Your task to perform on an android device: toggle airplane mode Image 0: 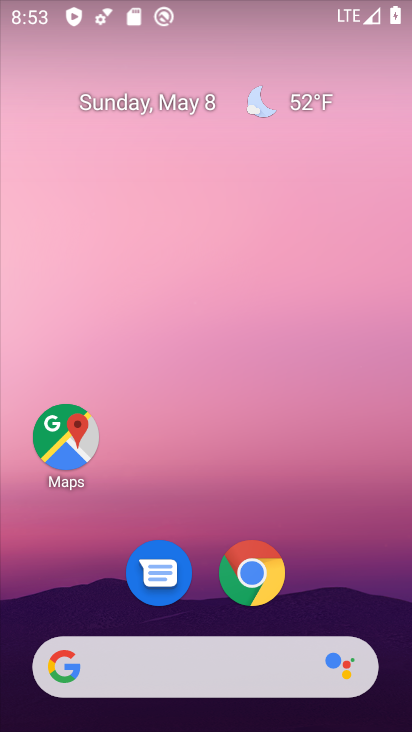
Step 0: drag from (207, 723) to (158, 214)
Your task to perform on an android device: toggle airplane mode Image 1: 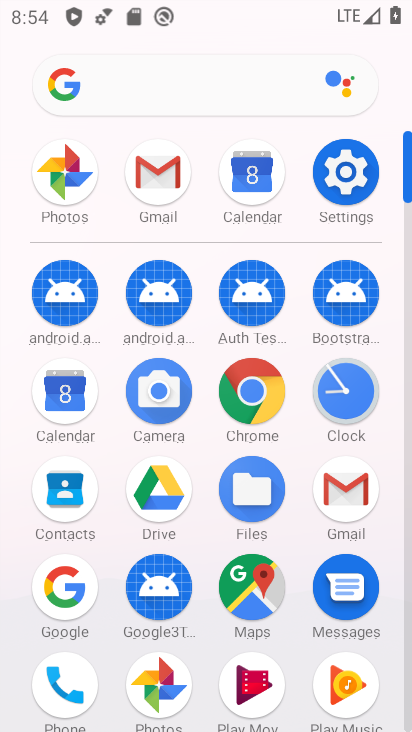
Step 1: click (344, 173)
Your task to perform on an android device: toggle airplane mode Image 2: 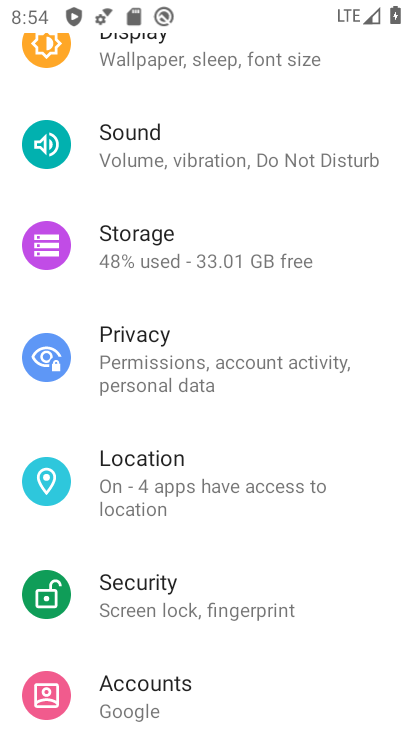
Step 2: drag from (240, 152) to (205, 654)
Your task to perform on an android device: toggle airplane mode Image 3: 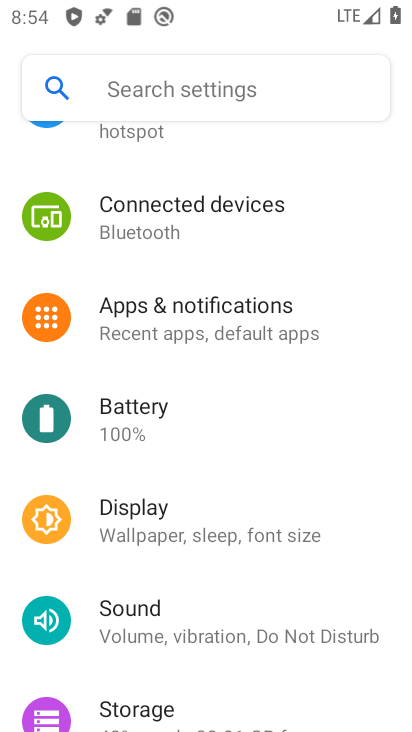
Step 3: drag from (208, 181) to (199, 588)
Your task to perform on an android device: toggle airplane mode Image 4: 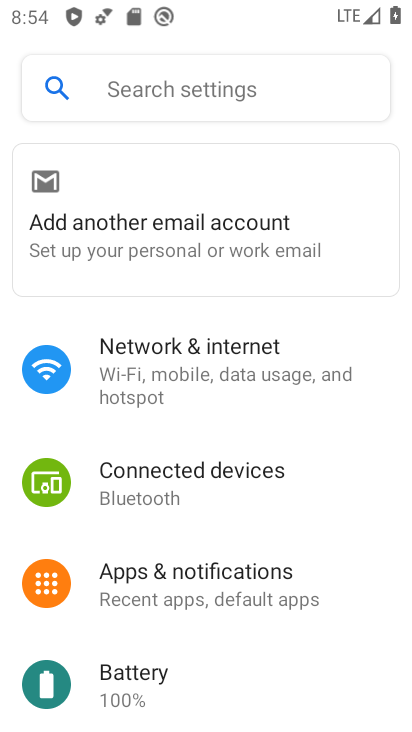
Step 4: click (174, 366)
Your task to perform on an android device: toggle airplane mode Image 5: 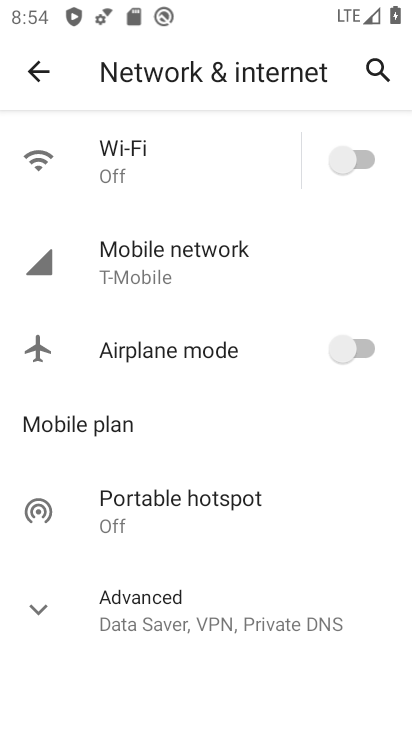
Step 5: click (361, 344)
Your task to perform on an android device: toggle airplane mode Image 6: 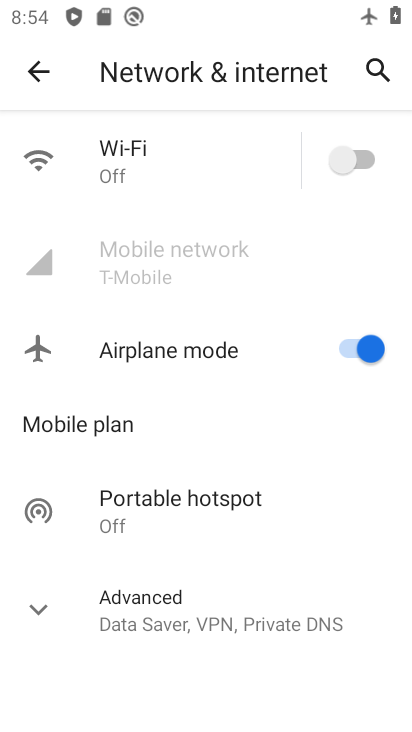
Step 6: task complete